Your task to perform on an android device: Search for razer huntsman on amazon, select the first entry, and add it to the cart. Image 0: 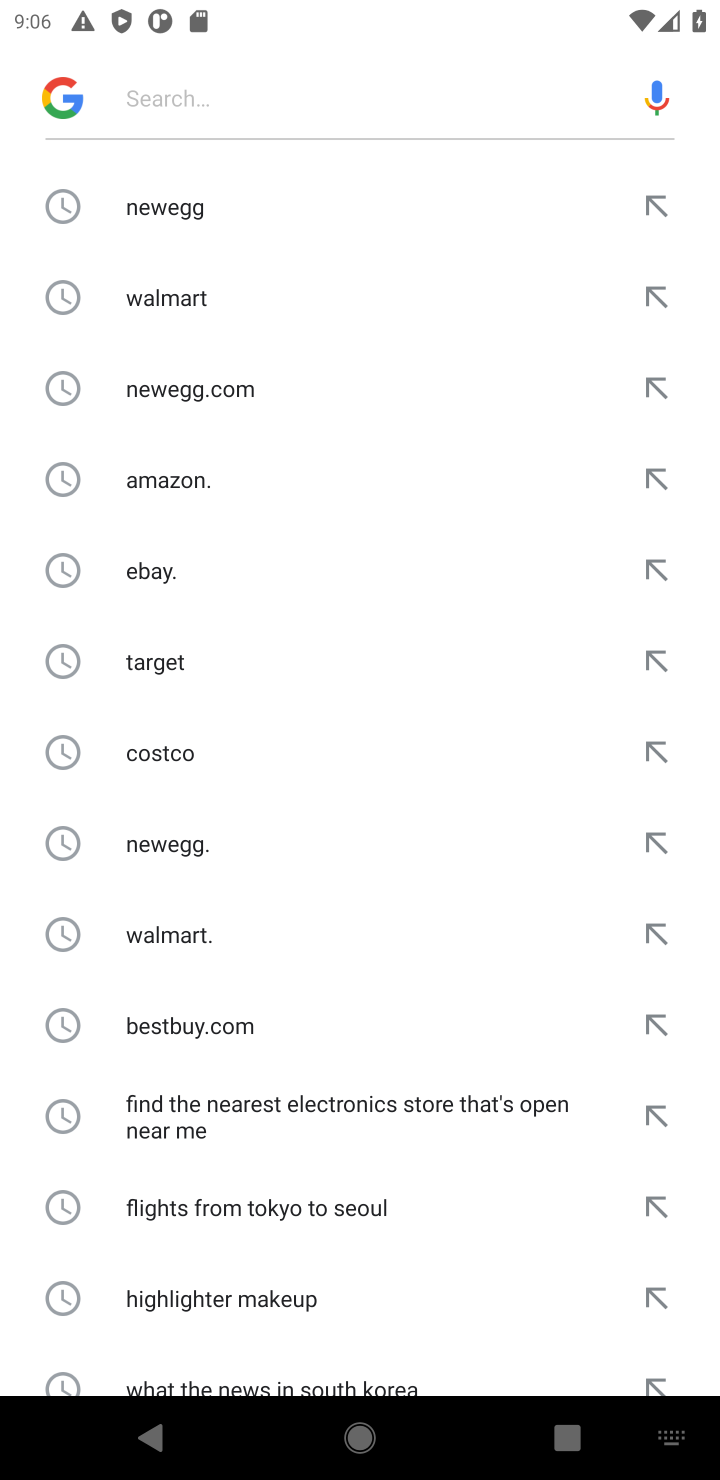
Step 0: type "amazon.com"
Your task to perform on an android device: Search for razer huntsman on amazon, select the first entry, and add it to the cart. Image 1: 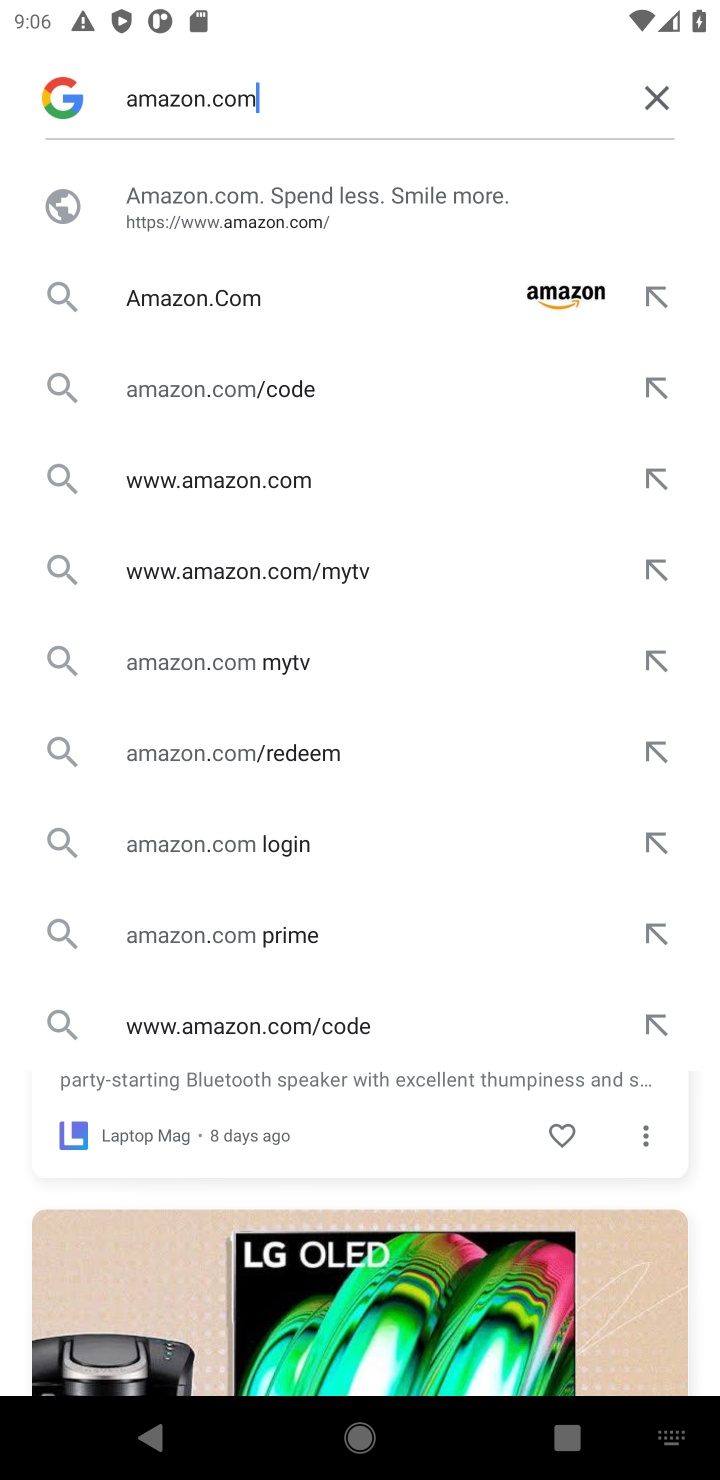
Step 1: press enter
Your task to perform on an android device: Search for razer huntsman on amazon, select the first entry, and add it to the cart. Image 2: 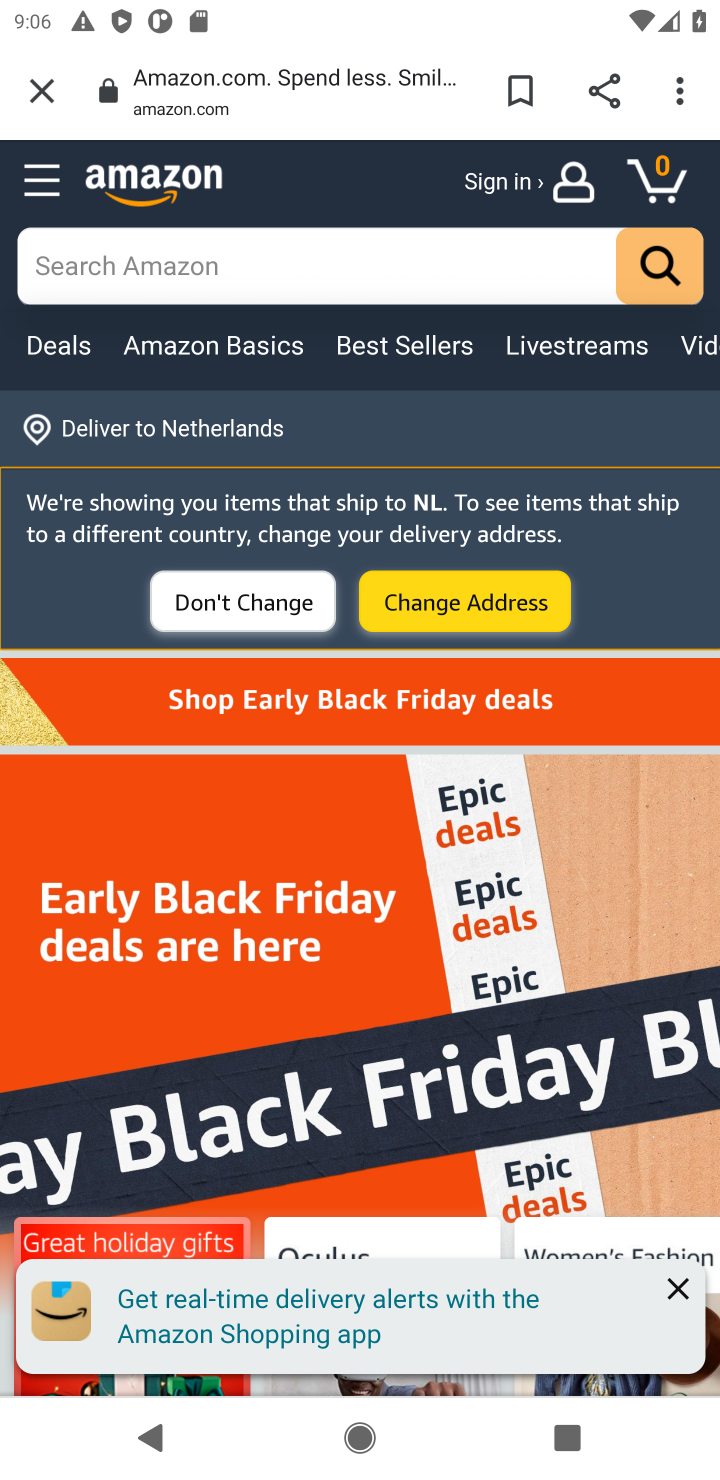
Step 2: click (485, 272)
Your task to perform on an android device: Search for razer huntsman on amazon, select the first entry, and add it to the cart. Image 3: 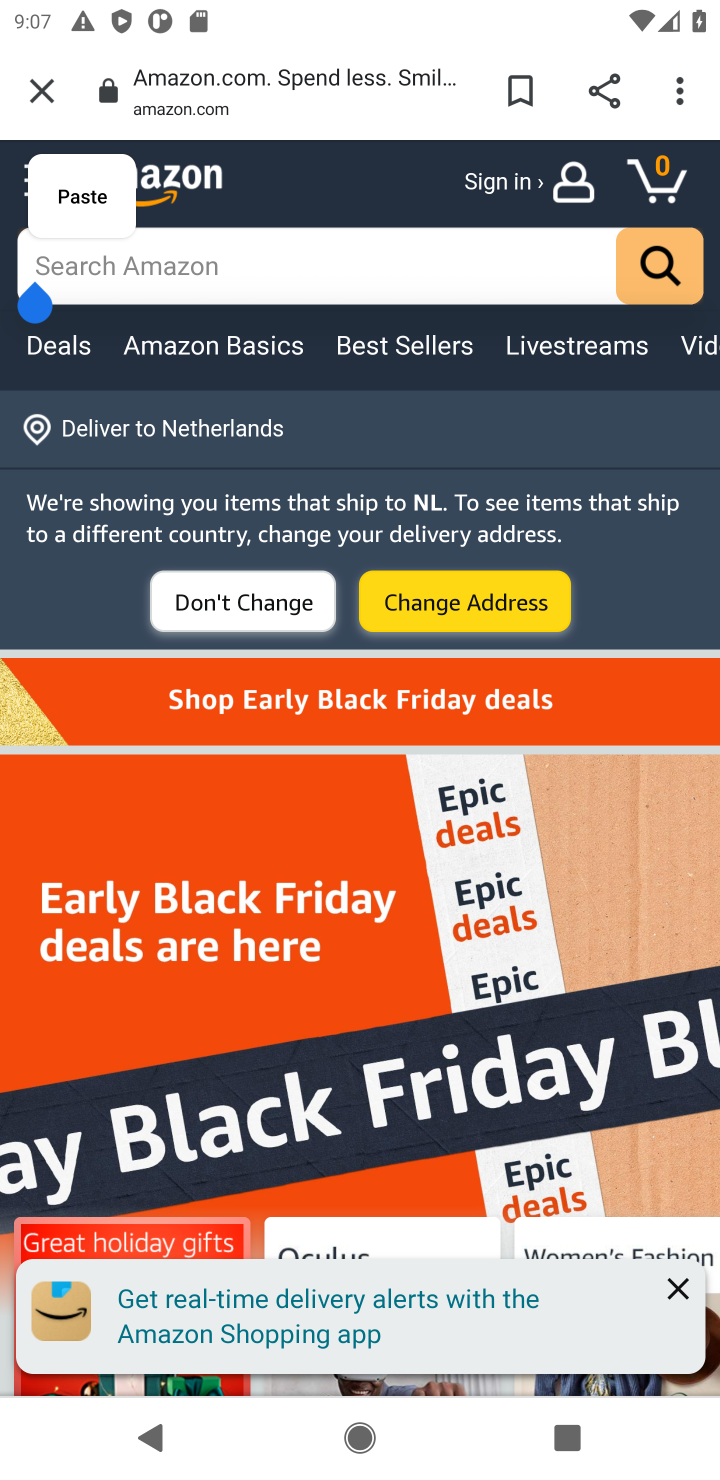
Step 3: type "razer huntsman"
Your task to perform on an android device: Search for razer huntsman on amazon, select the first entry, and add it to the cart. Image 4: 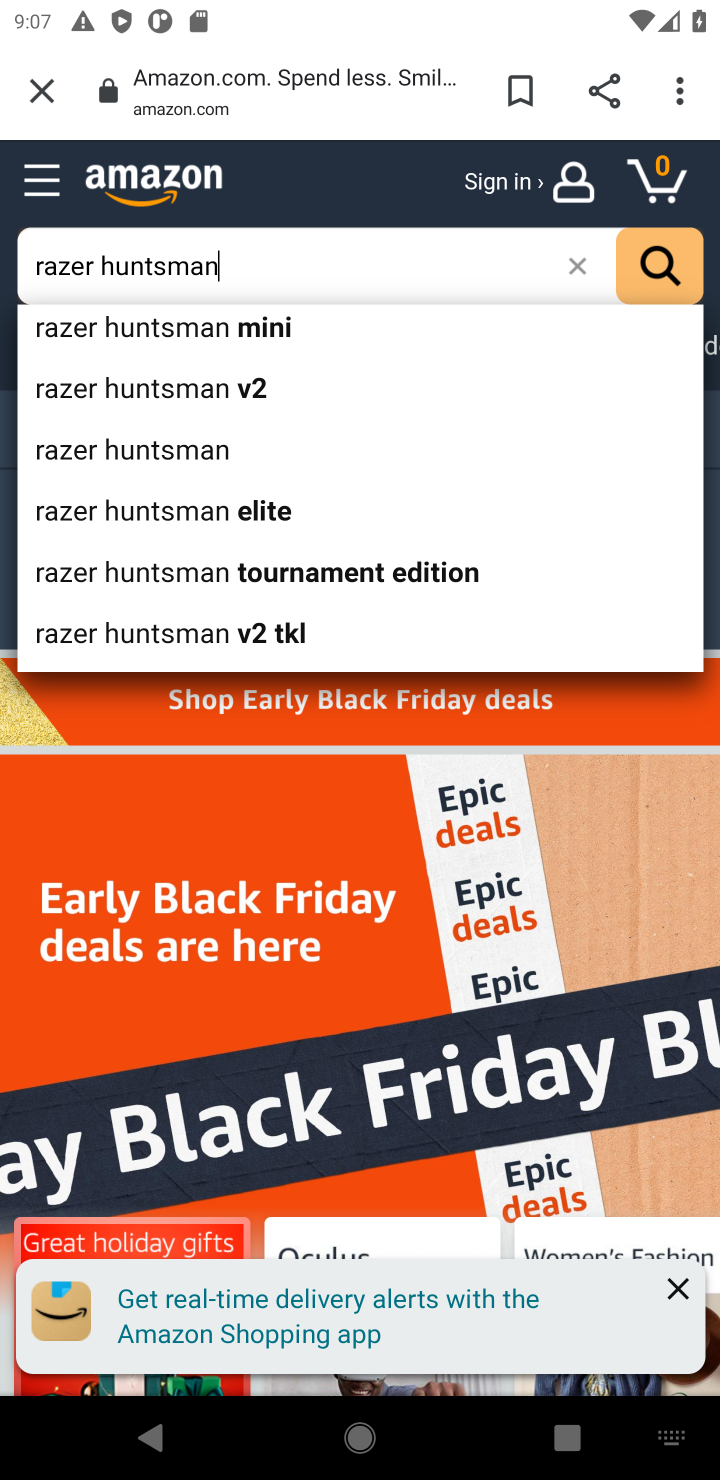
Step 4: click (679, 265)
Your task to perform on an android device: Search for razer huntsman on amazon, select the first entry, and add it to the cart. Image 5: 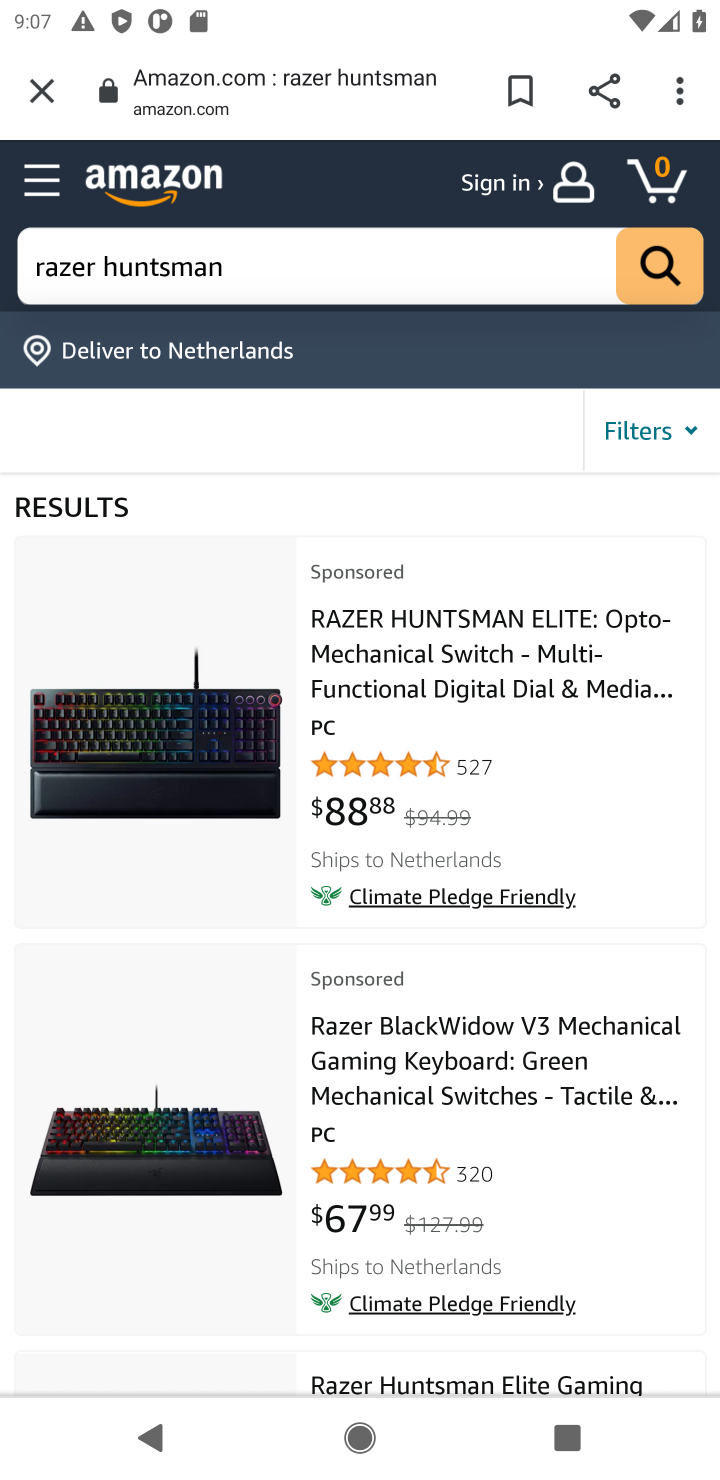
Step 5: drag from (470, 1058) to (508, 438)
Your task to perform on an android device: Search for razer huntsman on amazon, select the first entry, and add it to the cart. Image 6: 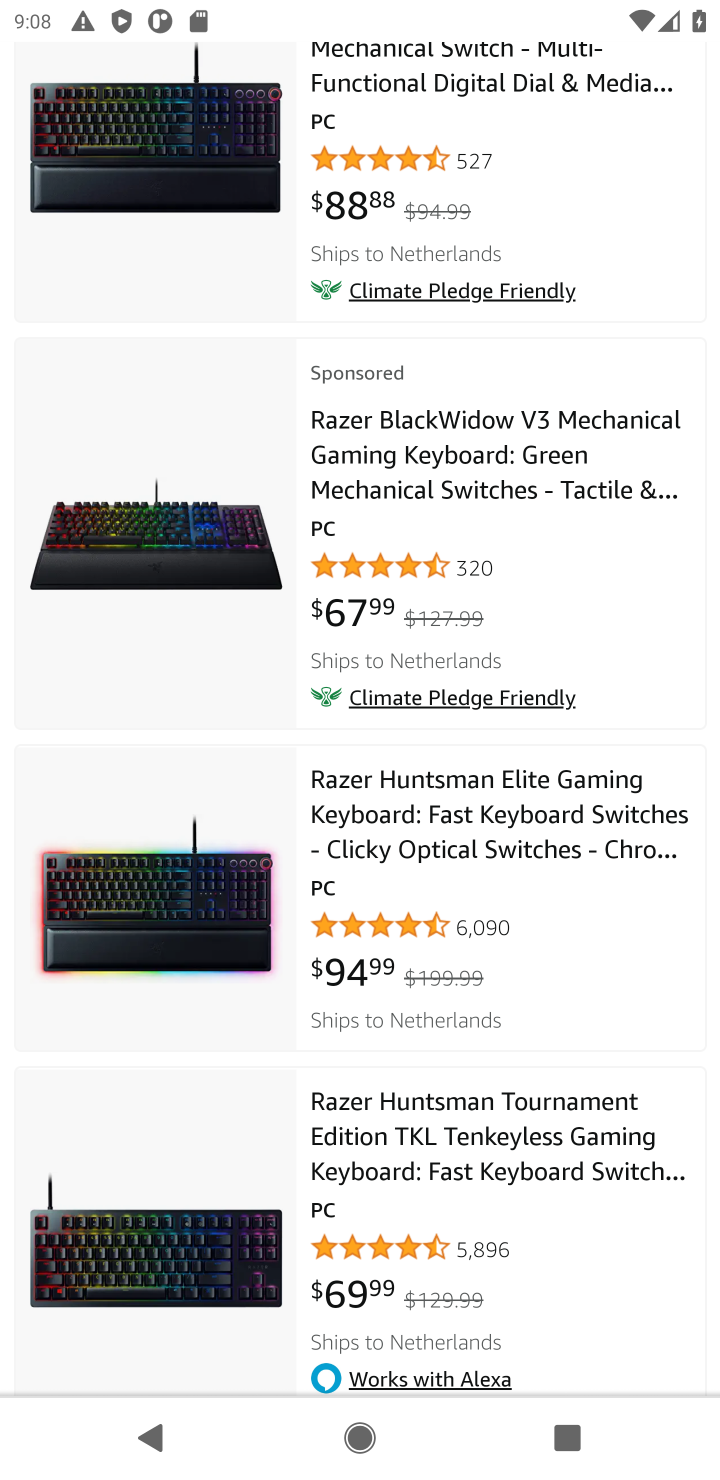
Step 6: click (513, 469)
Your task to perform on an android device: Search for razer huntsman on amazon, select the first entry, and add it to the cart. Image 7: 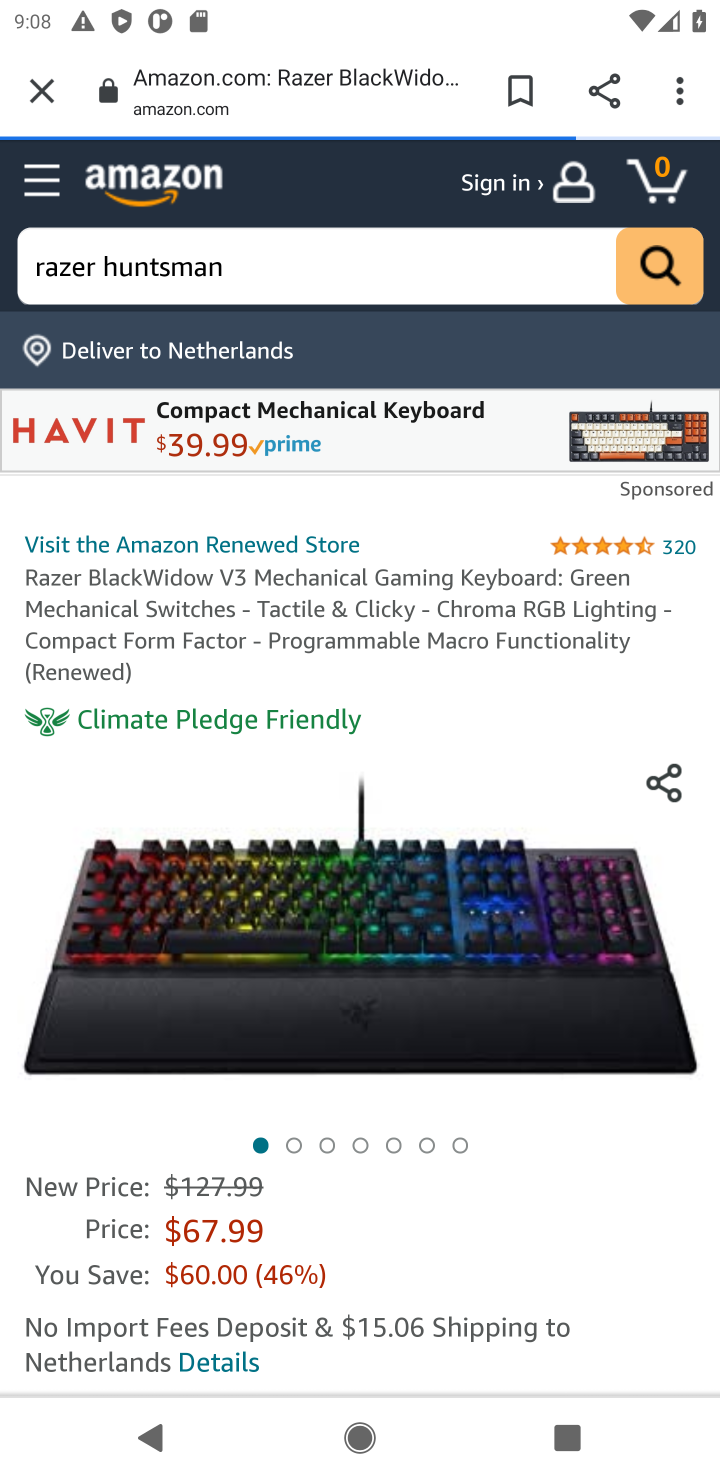
Step 7: drag from (402, 1091) to (434, 293)
Your task to perform on an android device: Search for razer huntsman on amazon, select the first entry, and add it to the cart. Image 8: 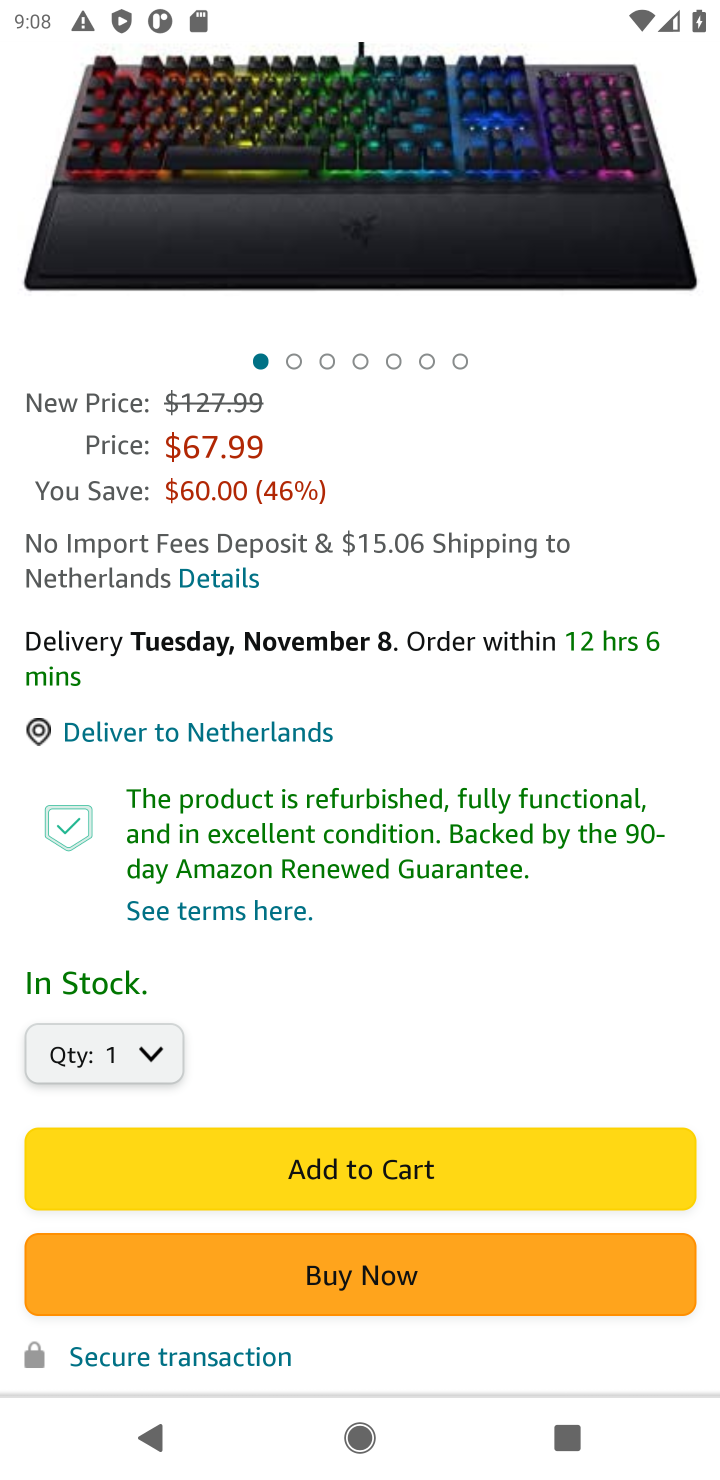
Step 8: click (471, 1177)
Your task to perform on an android device: Search for razer huntsman on amazon, select the first entry, and add it to the cart. Image 9: 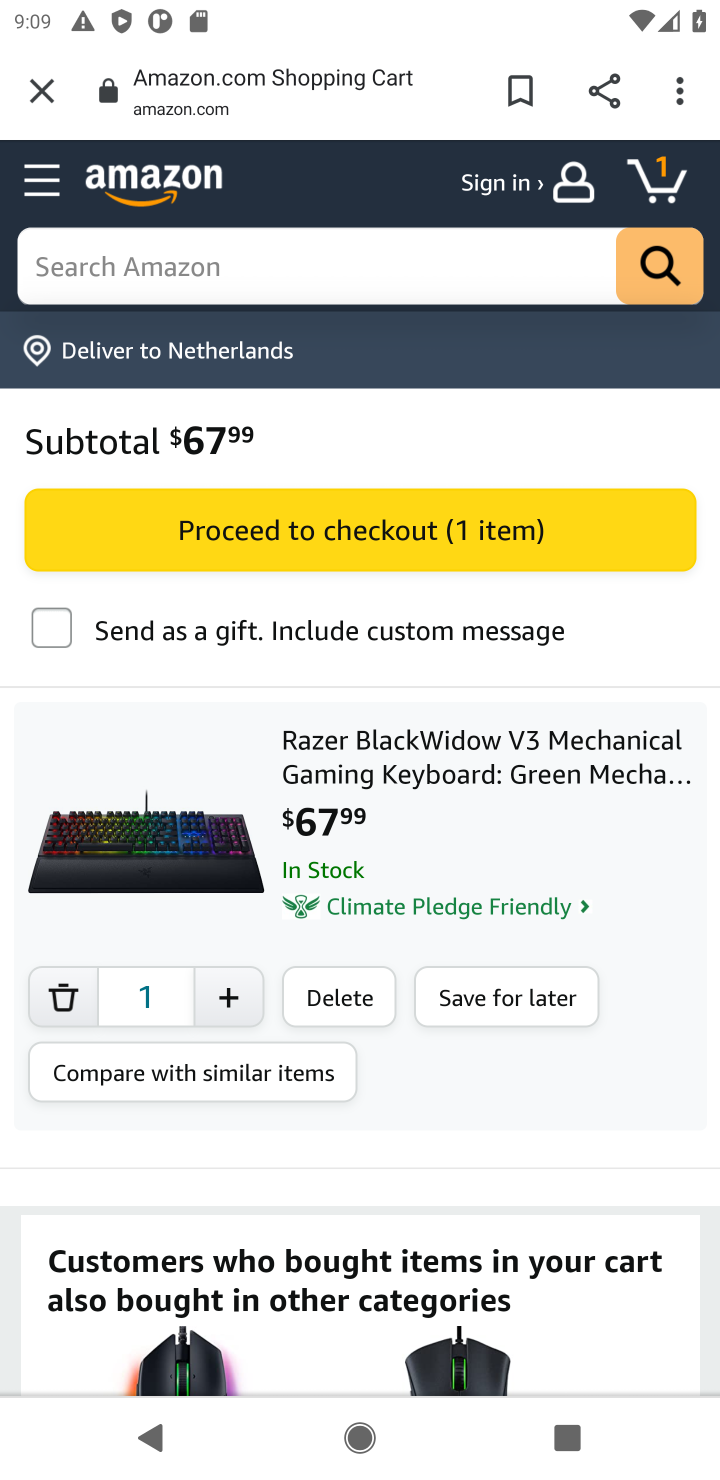
Step 9: click (482, 524)
Your task to perform on an android device: Search for razer huntsman on amazon, select the first entry, and add it to the cart. Image 10: 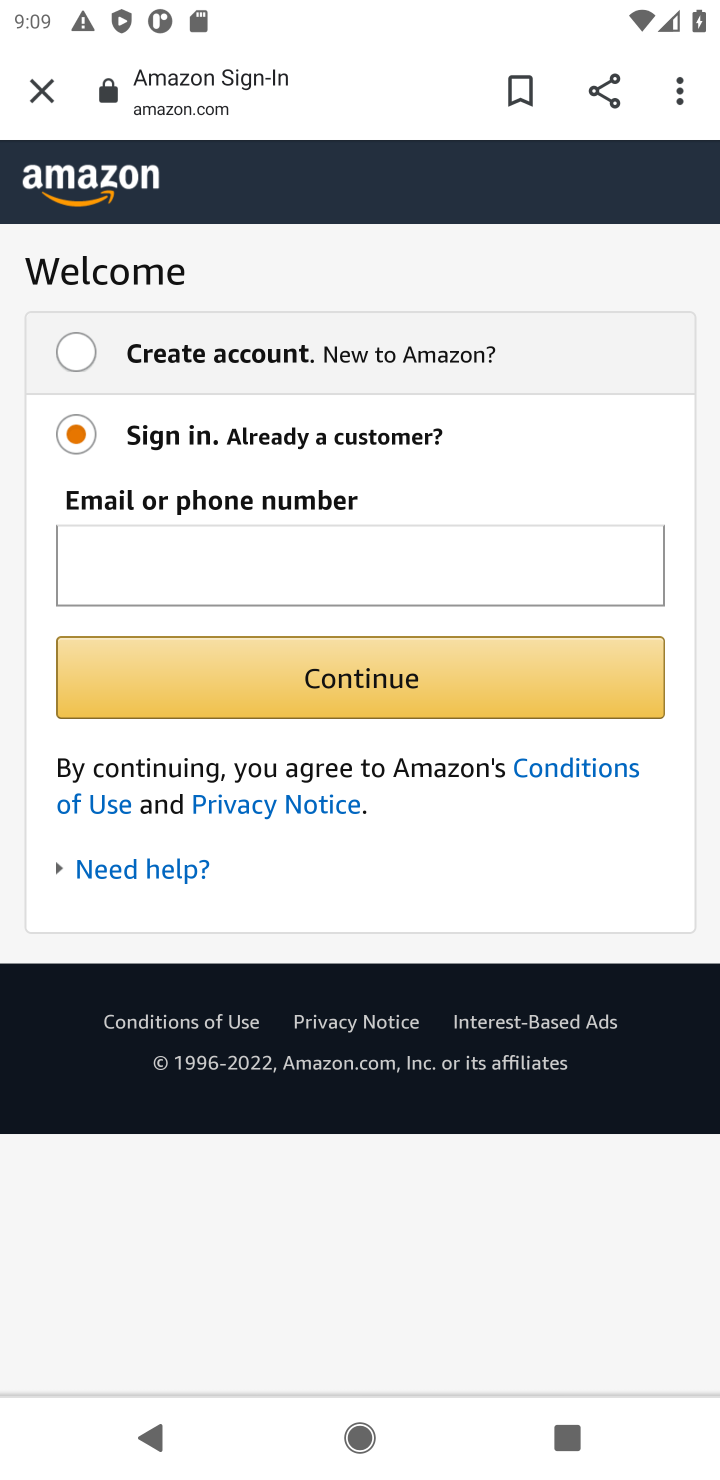
Step 10: task complete